Your task to perform on an android device: What's the weather? Image 0: 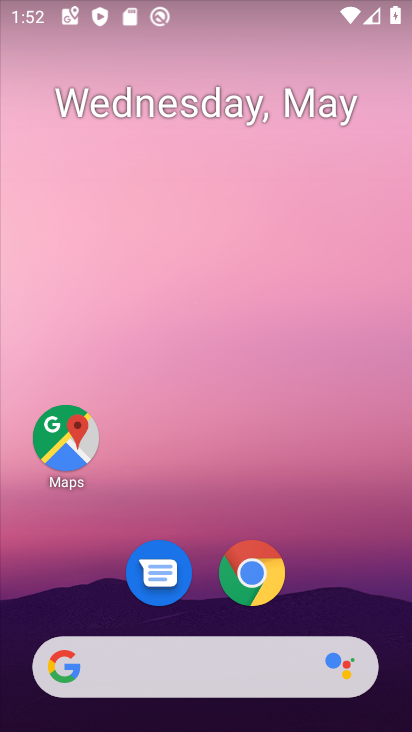
Step 0: click (216, 665)
Your task to perform on an android device: What's the weather? Image 1: 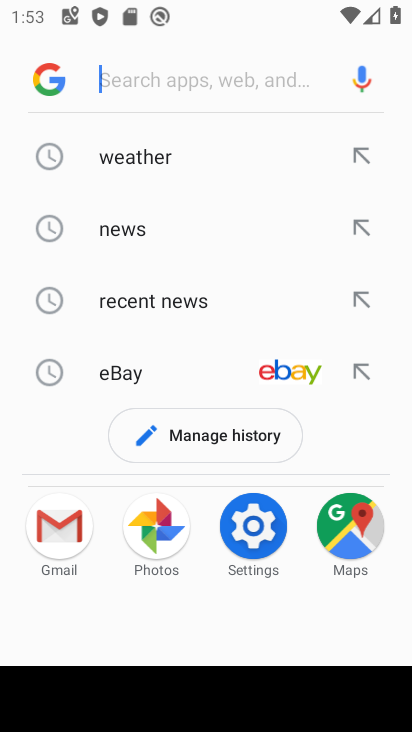
Step 1: type "what's the weather"
Your task to perform on an android device: What's the weather? Image 2: 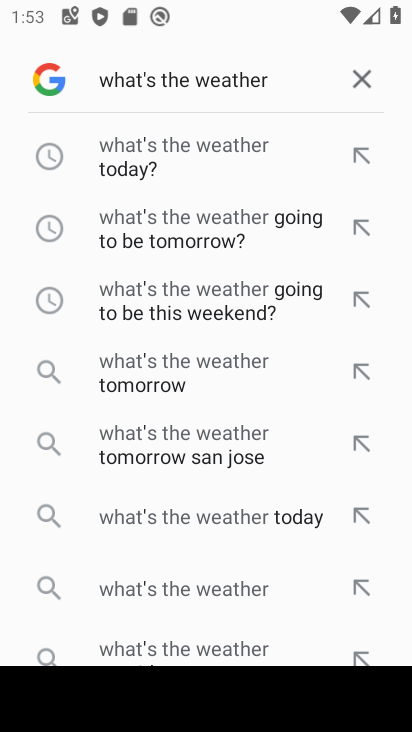
Step 2: click (197, 593)
Your task to perform on an android device: What's the weather? Image 3: 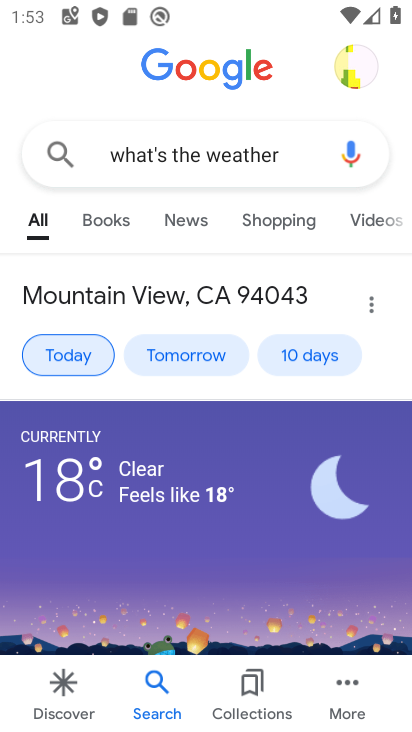
Step 3: task complete